Your task to perform on an android device: turn notification dots on Image 0: 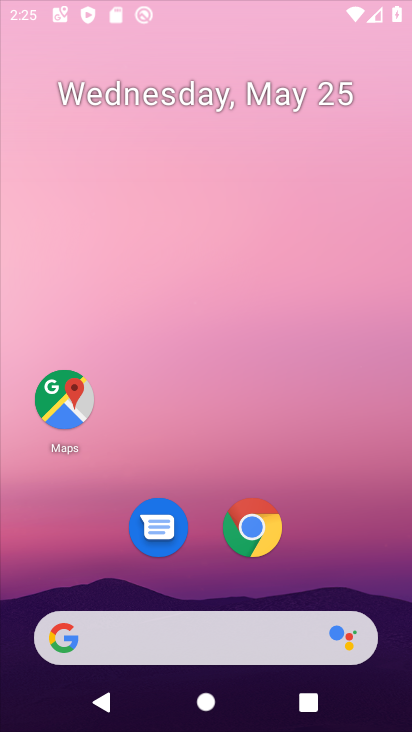
Step 0: click (303, 154)
Your task to perform on an android device: turn notification dots on Image 1: 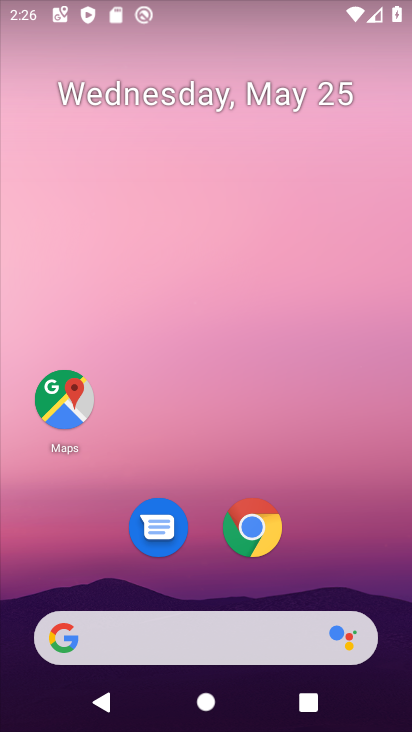
Step 1: drag from (201, 593) to (272, 179)
Your task to perform on an android device: turn notification dots on Image 2: 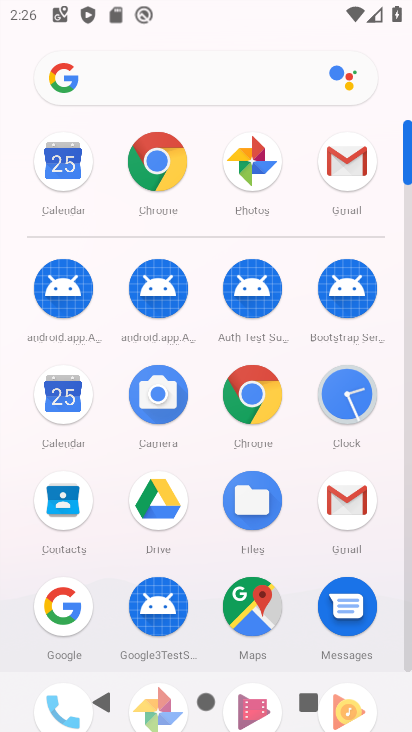
Step 2: drag from (183, 537) to (202, 266)
Your task to perform on an android device: turn notification dots on Image 3: 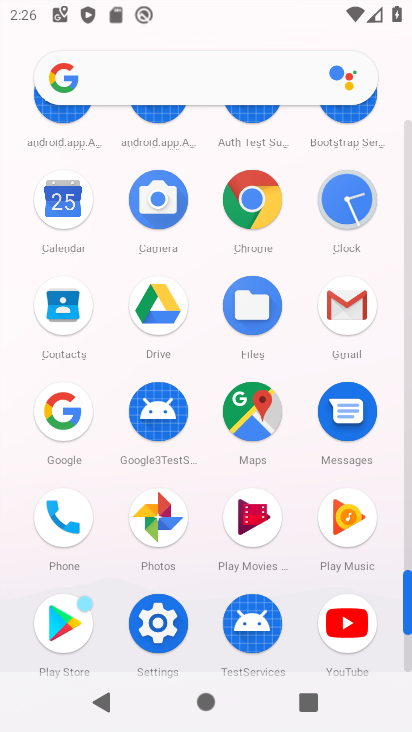
Step 3: click (164, 621)
Your task to perform on an android device: turn notification dots on Image 4: 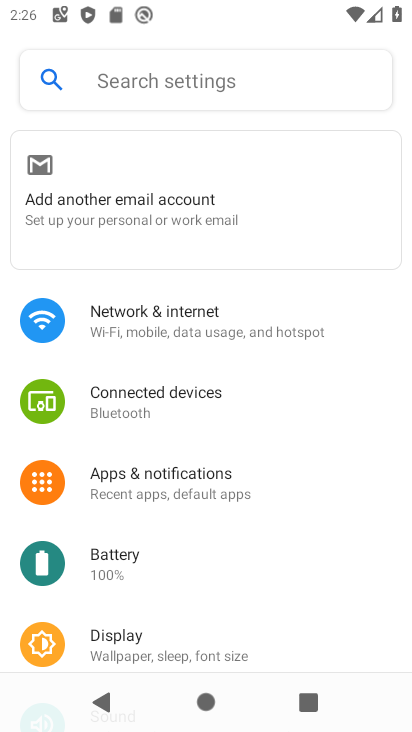
Step 4: drag from (201, 576) to (300, 296)
Your task to perform on an android device: turn notification dots on Image 5: 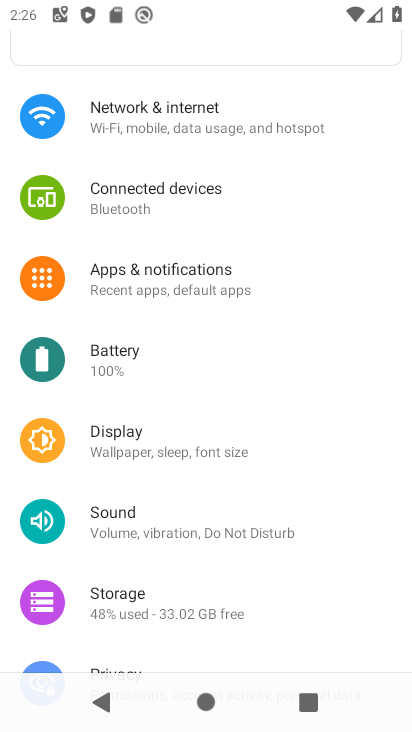
Step 5: click (219, 271)
Your task to perform on an android device: turn notification dots on Image 6: 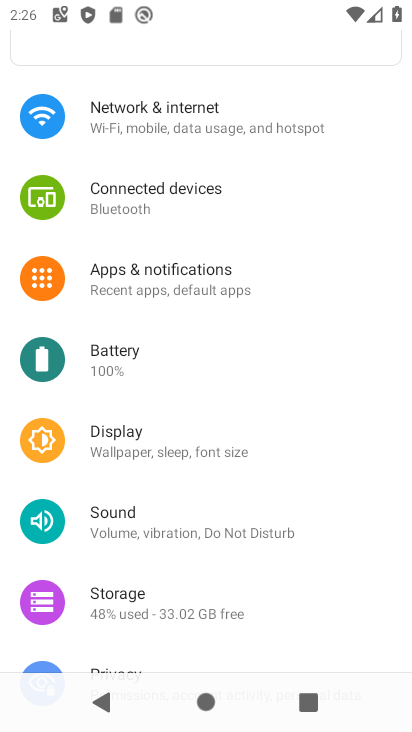
Step 6: click (222, 277)
Your task to perform on an android device: turn notification dots on Image 7: 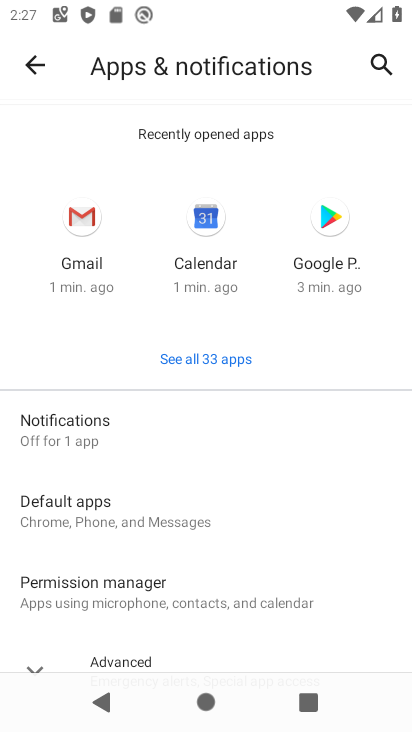
Step 7: click (138, 449)
Your task to perform on an android device: turn notification dots on Image 8: 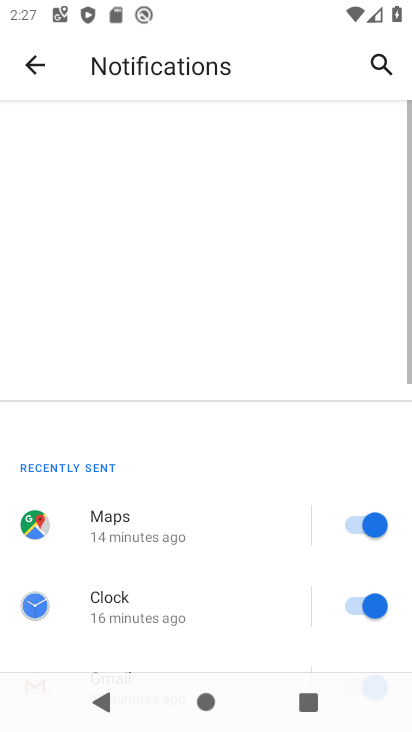
Step 8: drag from (257, 595) to (358, 307)
Your task to perform on an android device: turn notification dots on Image 9: 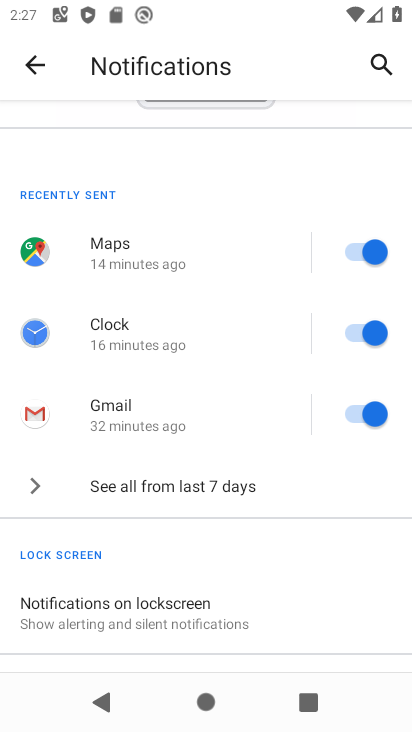
Step 9: drag from (247, 548) to (337, 297)
Your task to perform on an android device: turn notification dots on Image 10: 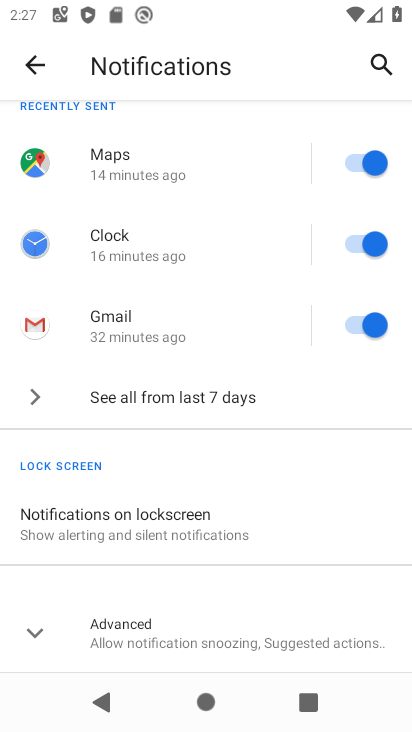
Step 10: click (173, 625)
Your task to perform on an android device: turn notification dots on Image 11: 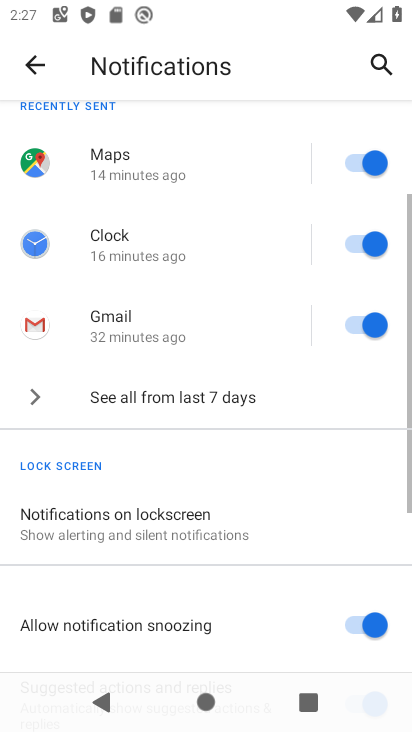
Step 11: task complete